Your task to perform on an android device: Open my contact list Image 0: 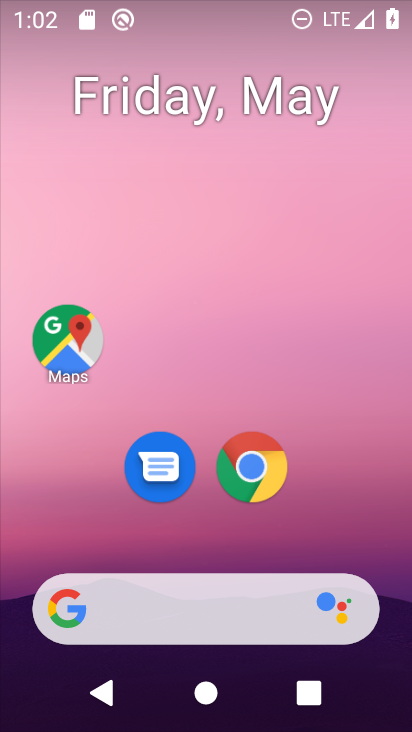
Step 0: drag from (264, 584) to (224, 7)
Your task to perform on an android device: Open my contact list Image 1: 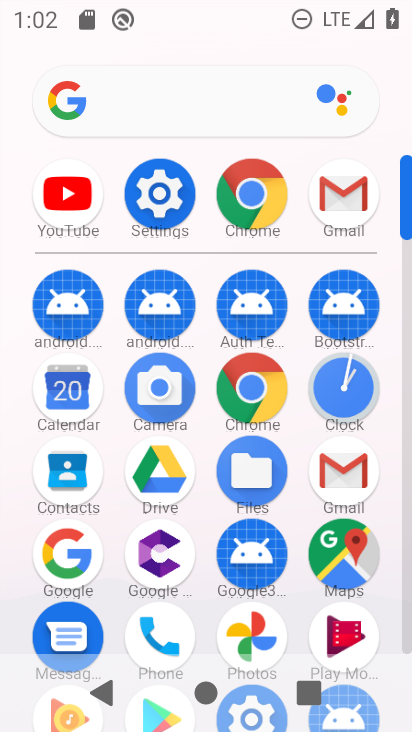
Step 1: click (86, 479)
Your task to perform on an android device: Open my contact list Image 2: 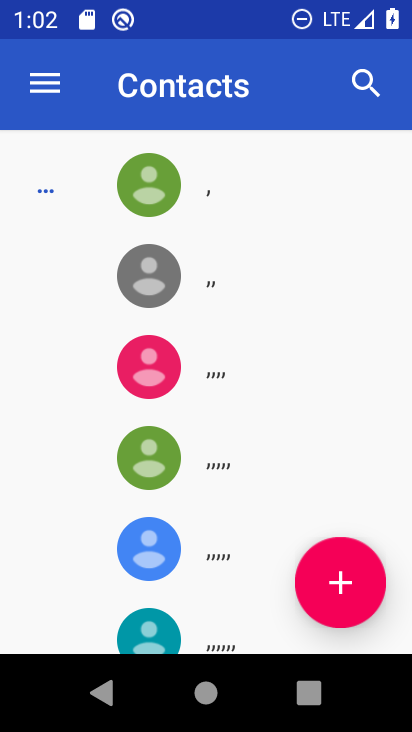
Step 2: task complete